Your task to perform on an android device: turn on wifi Image 0: 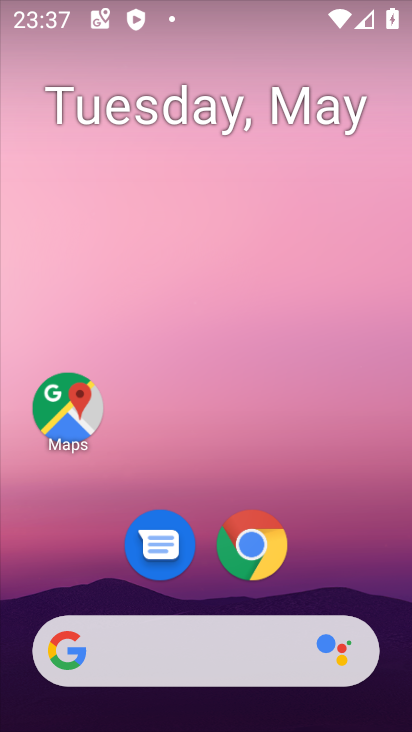
Step 0: drag from (210, 597) to (240, 270)
Your task to perform on an android device: turn on wifi Image 1: 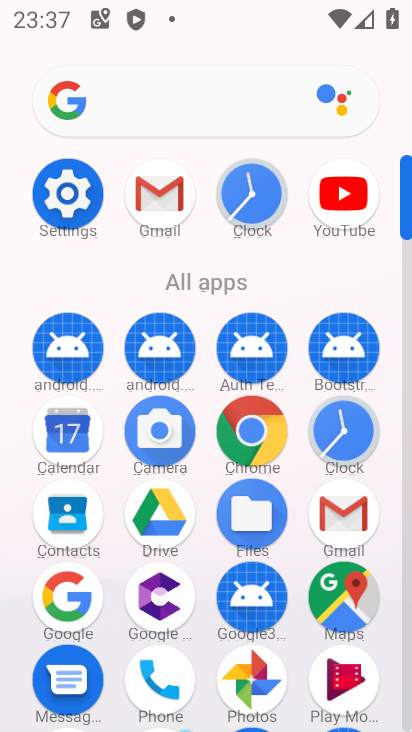
Step 1: click (63, 196)
Your task to perform on an android device: turn on wifi Image 2: 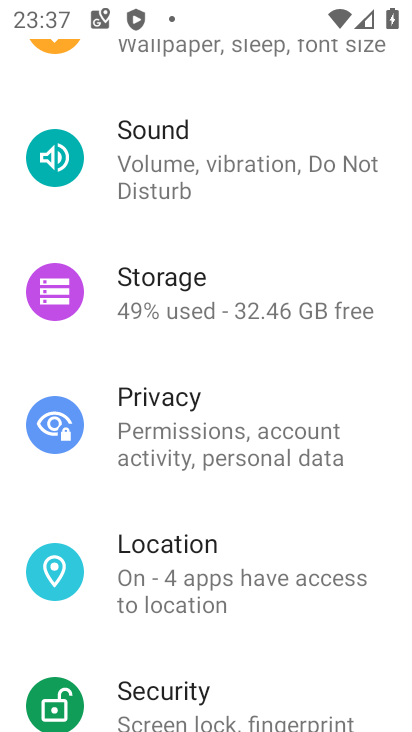
Step 2: drag from (218, 192) to (209, 673)
Your task to perform on an android device: turn on wifi Image 3: 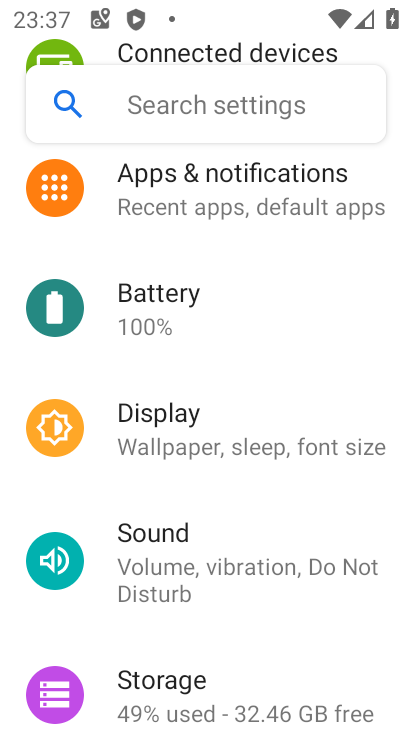
Step 3: drag from (267, 278) to (270, 666)
Your task to perform on an android device: turn on wifi Image 4: 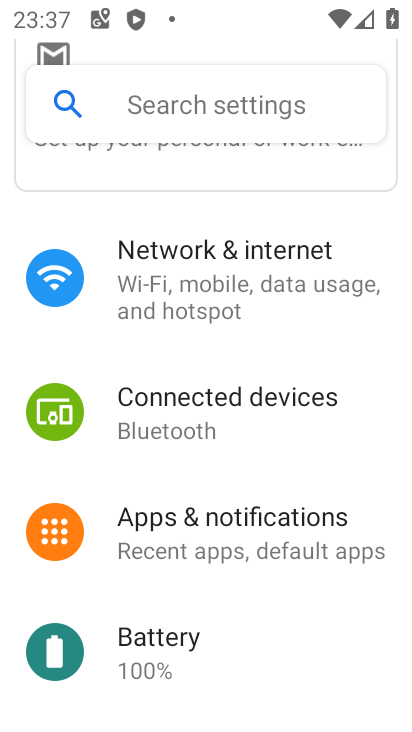
Step 4: click (245, 284)
Your task to perform on an android device: turn on wifi Image 5: 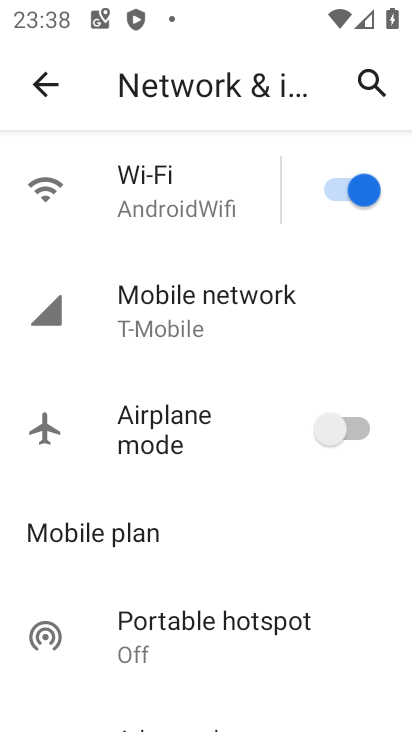
Step 5: task complete